Your task to perform on an android device: turn notification dots on Image 0: 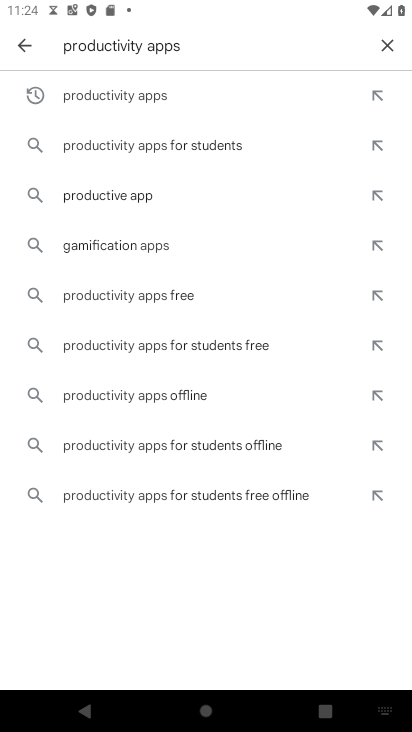
Step 0: press back button
Your task to perform on an android device: turn notification dots on Image 1: 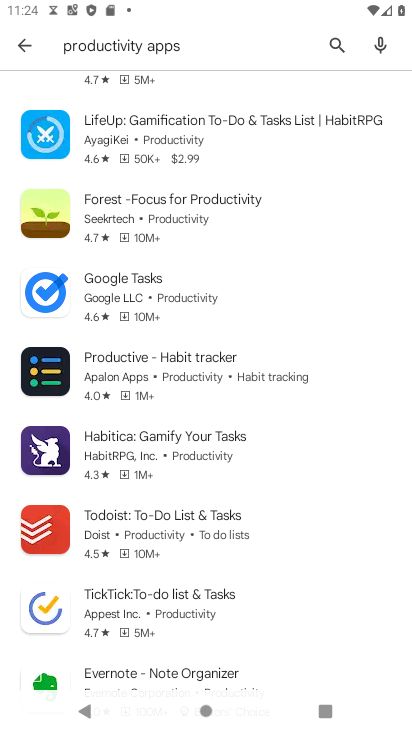
Step 1: press home button
Your task to perform on an android device: turn notification dots on Image 2: 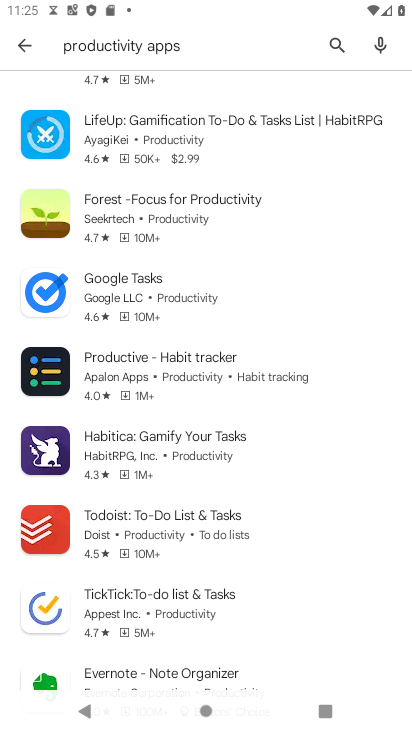
Step 2: press home button
Your task to perform on an android device: turn notification dots on Image 3: 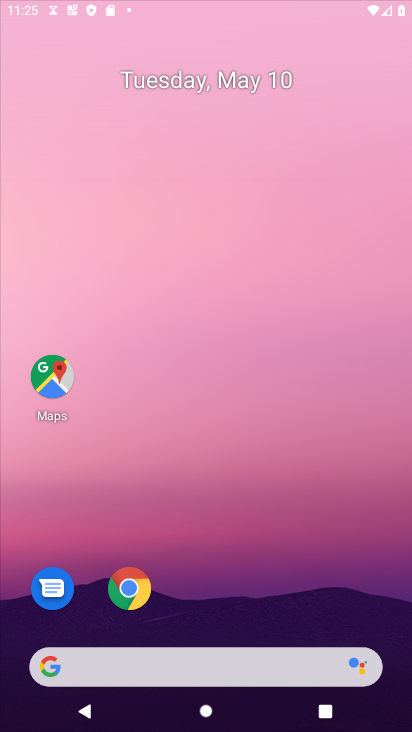
Step 3: press home button
Your task to perform on an android device: turn notification dots on Image 4: 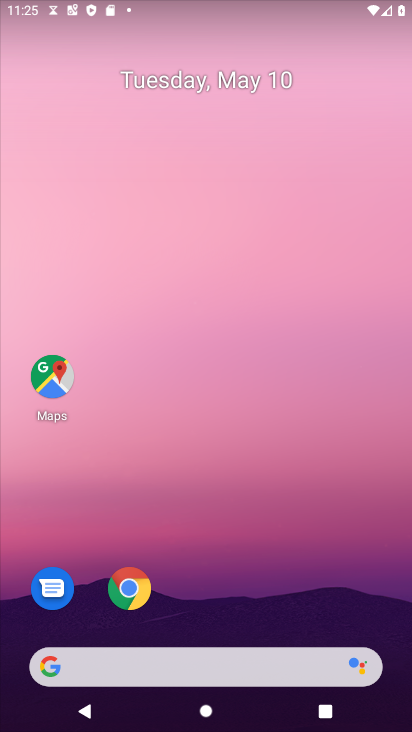
Step 4: drag from (305, 596) to (62, 137)
Your task to perform on an android device: turn notification dots on Image 5: 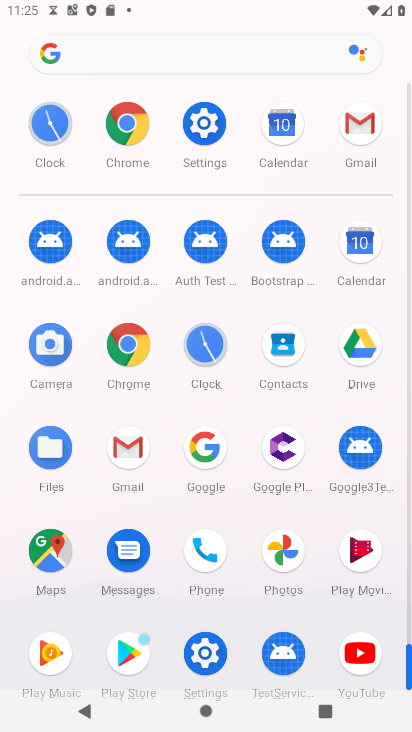
Step 5: click (202, 119)
Your task to perform on an android device: turn notification dots on Image 6: 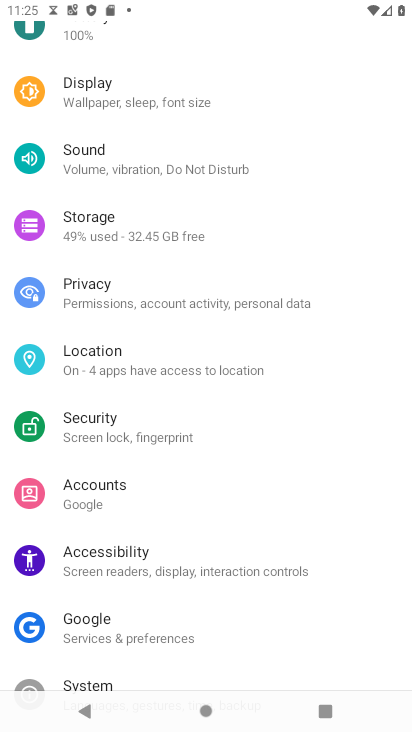
Step 6: drag from (118, 225) to (163, 550)
Your task to perform on an android device: turn notification dots on Image 7: 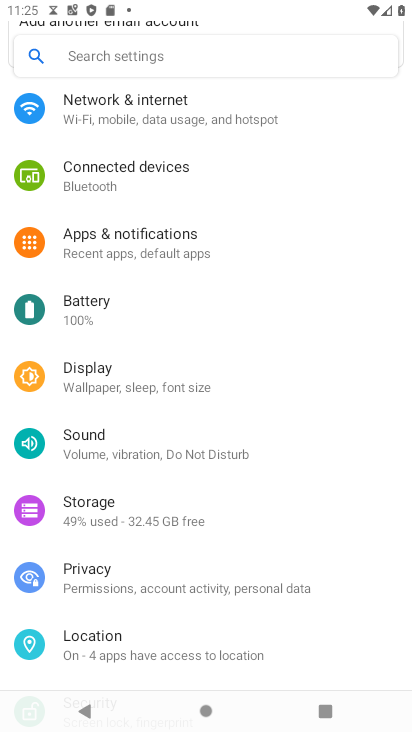
Step 7: drag from (153, 341) to (152, 542)
Your task to perform on an android device: turn notification dots on Image 8: 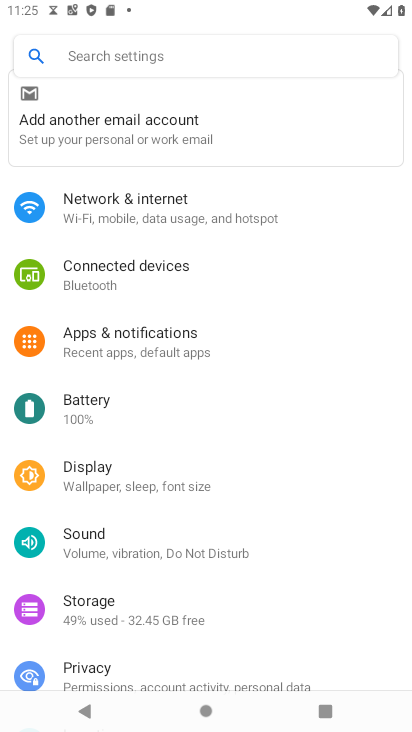
Step 8: drag from (120, 265) to (137, 515)
Your task to perform on an android device: turn notification dots on Image 9: 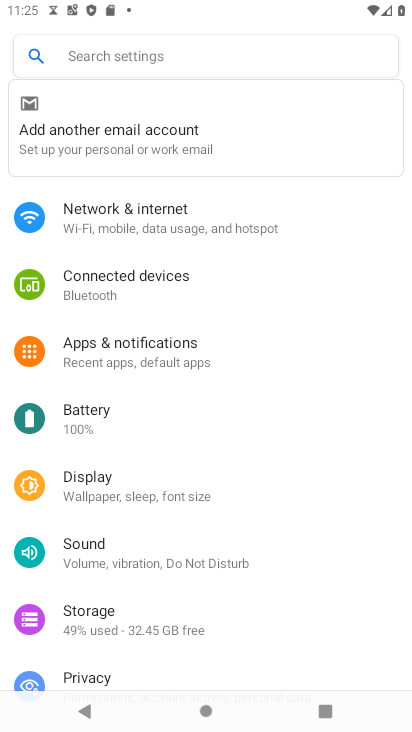
Step 9: click (108, 344)
Your task to perform on an android device: turn notification dots on Image 10: 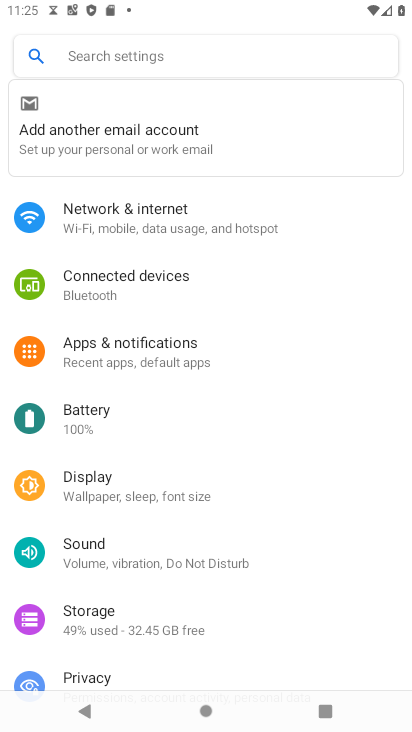
Step 10: click (108, 344)
Your task to perform on an android device: turn notification dots on Image 11: 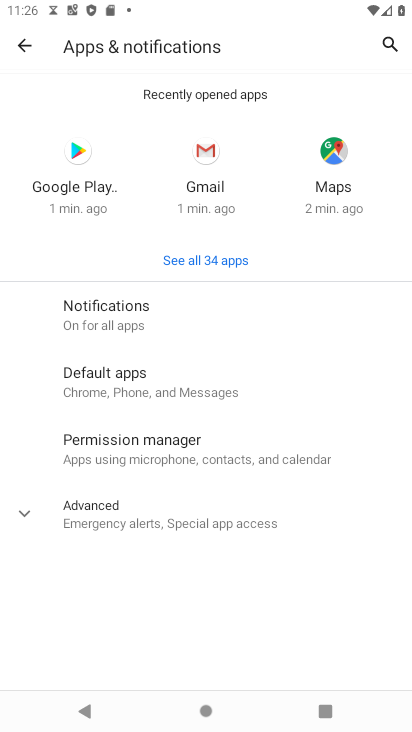
Step 11: click (92, 312)
Your task to perform on an android device: turn notification dots on Image 12: 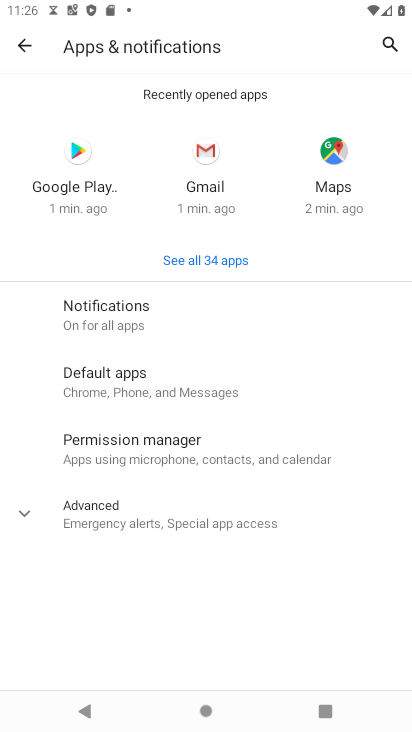
Step 12: click (72, 321)
Your task to perform on an android device: turn notification dots on Image 13: 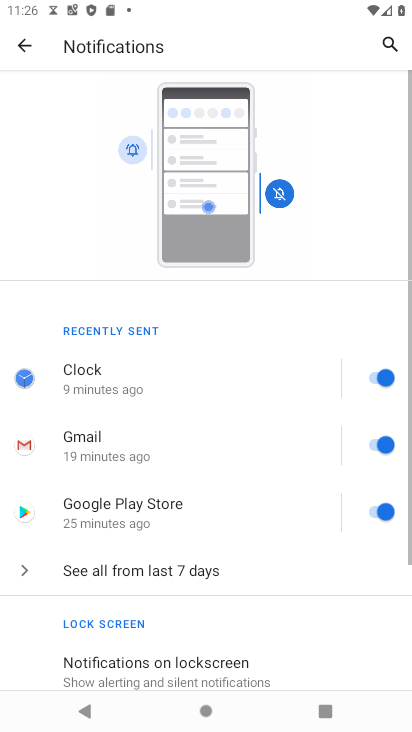
Step 13: drag from (240, 538) to (103, 58)
Your task to perform on an android device: turn notification dots on Image 14: 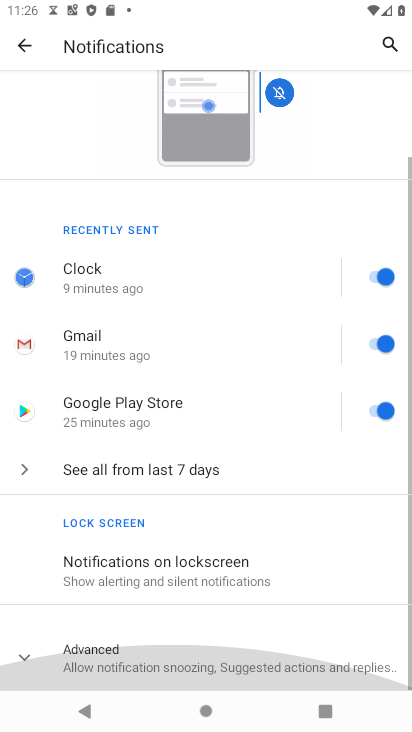
Step 14: click (151, 130)
Your task to perform on an android device: turn notification dots on Image 15: 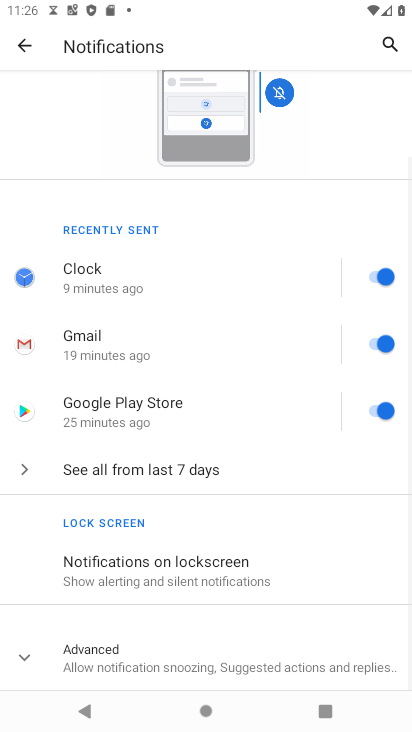
Step 15: drag from (219, 533) to (169, 51)
Your task to perform on an android device: turn notification dots on Image 16: 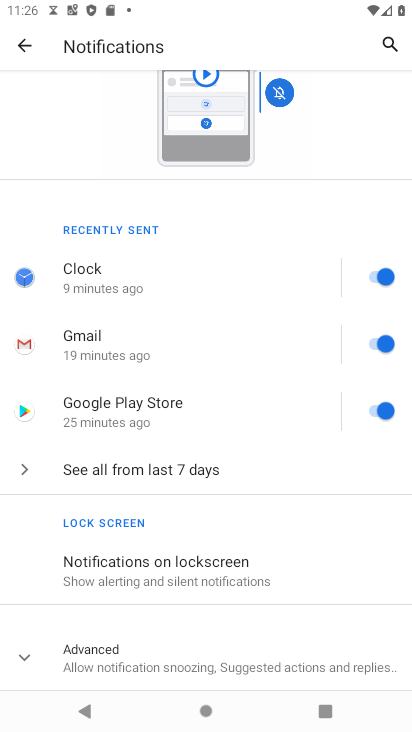
Step 16: click (113, 655)
Your task to perform on an android device: turn notification dots on Image 17: 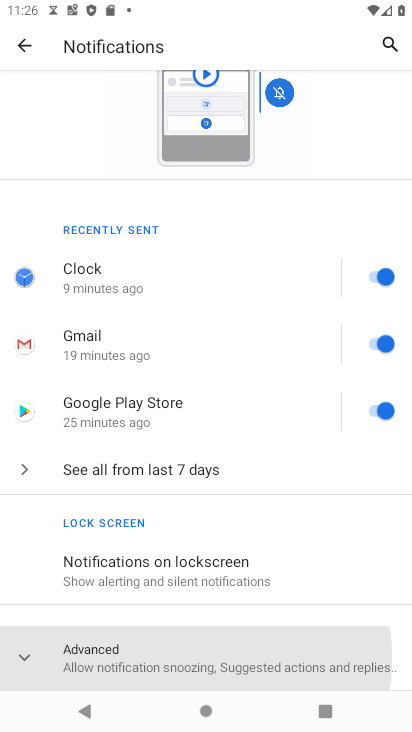
Step 17: click (112, 654)
Your task to perform on an android device: turn notification dots on Image 18: 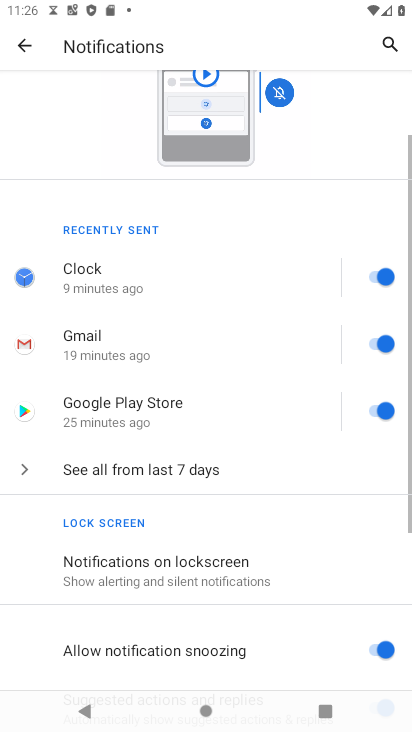
Step 18: drag from (233, 611) to (170, 194)
Your task to perform on an android device: turn notification dots on Image 19: 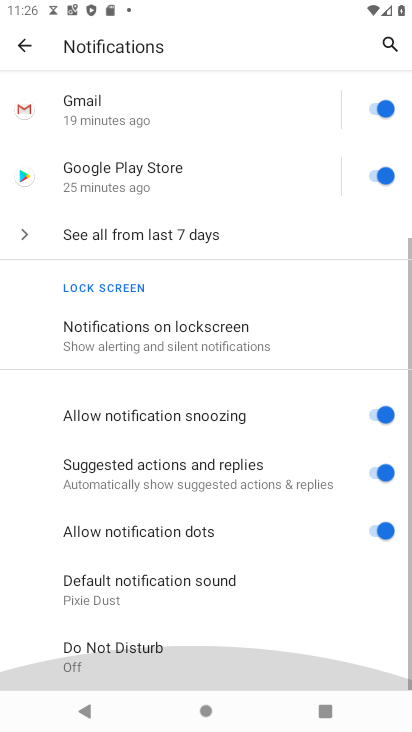
Step 19: drag from (224, 546) to (184, 37)
Your task to perform on an android device: turn notification dots on Image 20: 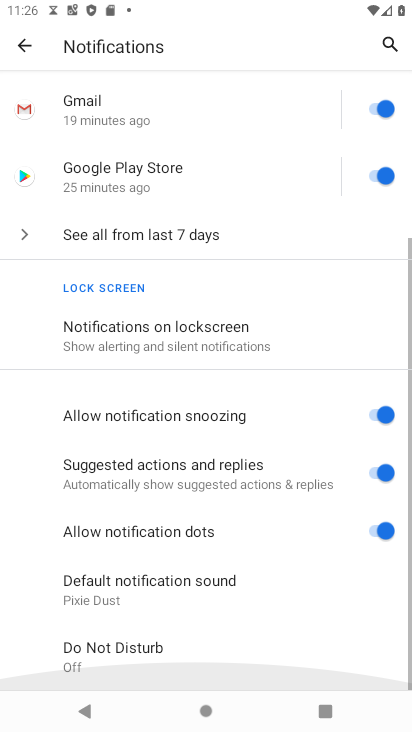
Step 20: drag from (286, 471) to (221, 67)
Your task to perform on an android device: turn notification dots on Image 21: 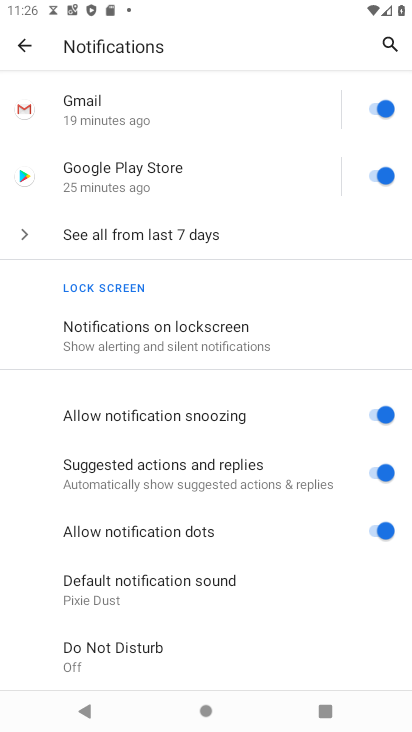
Step 21: click (378, 532)
Your task to perform on an android device: turn notification dots on Image 22: 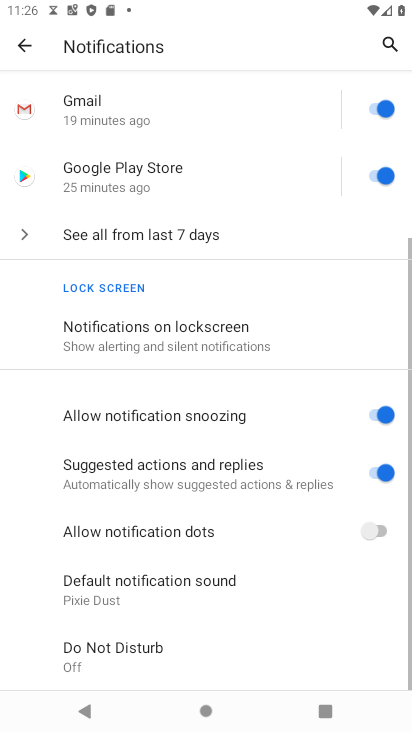
Step 22: click (378, 532)
Your task to perform on an android device: turn notification dots on Image 23: 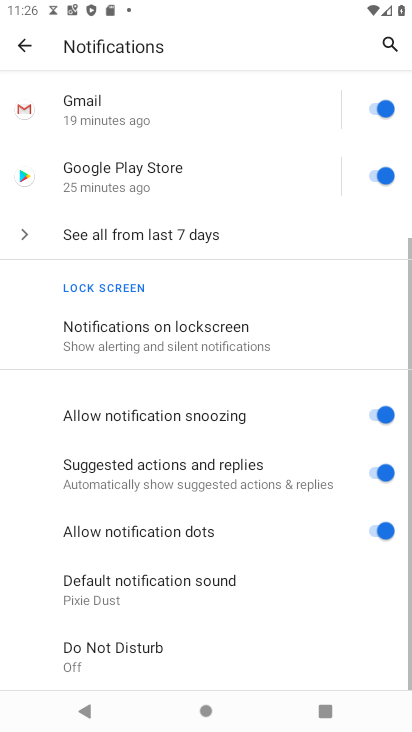
Step 23: task complete